Your task to perform on an android device: Go to eBay Image 0: 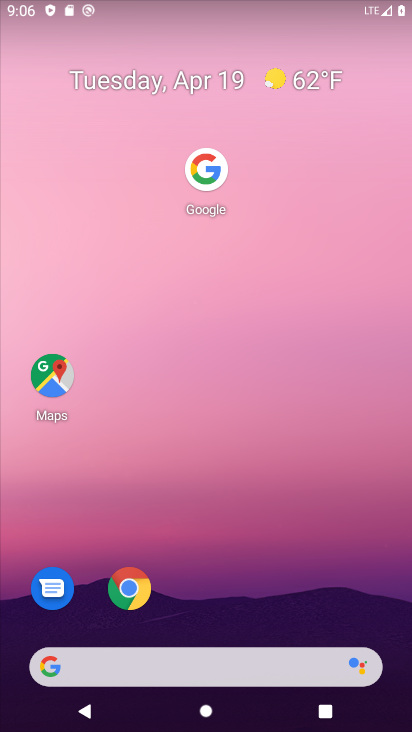
Step 0: click (129, 589)
Your task to perform on an android device: Go to eBay Image 1: 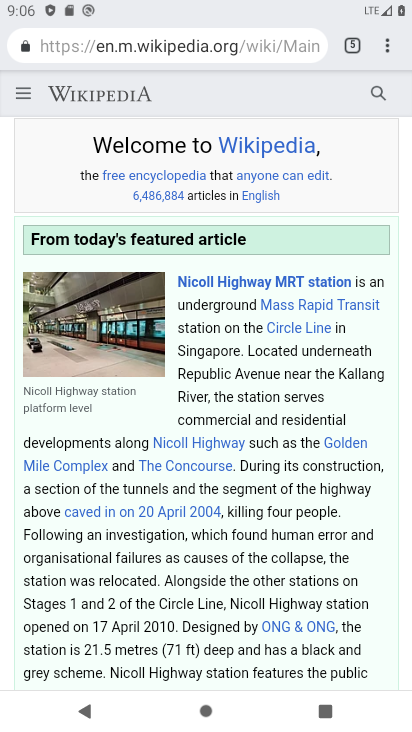
Step 1: click (383, 45)
Your task to perform on an android device: Go to eBay Image 2: 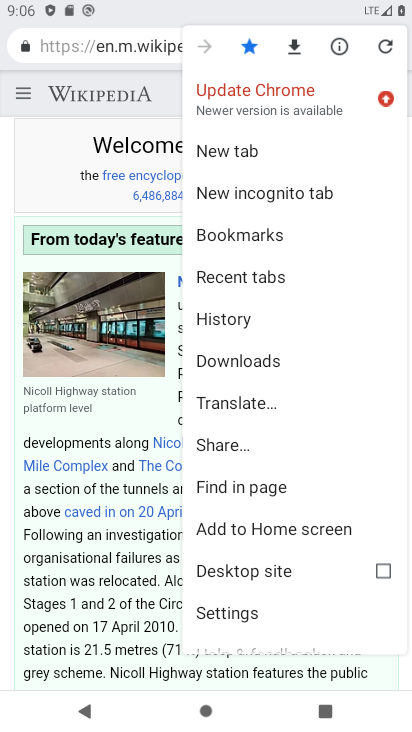
Step 2: click (217, 154)
Your task to perform on an android device: Go to eBay Image 3: 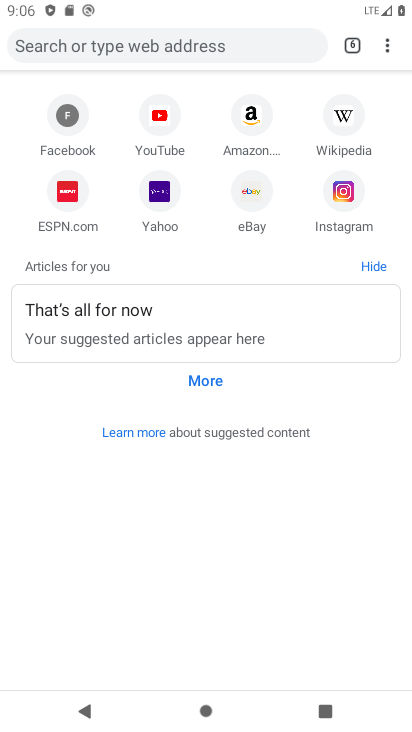
Step 3: click (251, 196)
Your task to perform on an android device: Go to eBay Image 4: 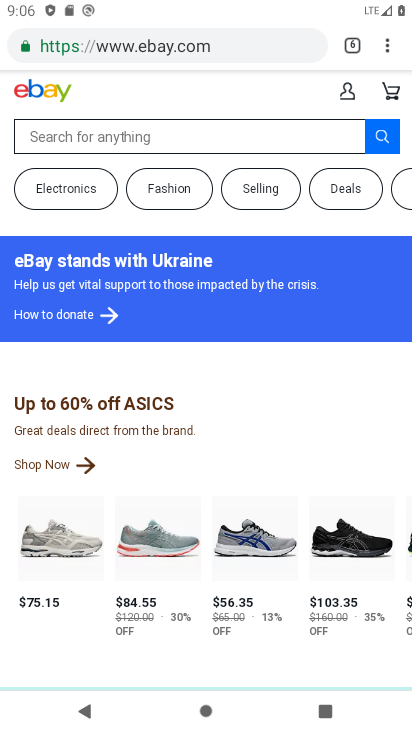
Step 4: task complete